Your task to perform on an android device: Open internet settings Image 0: 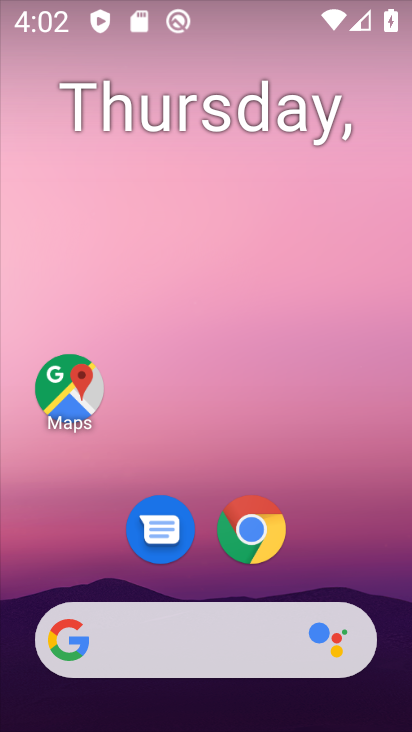
Step 0: click (67, 374)
Your task to perform on an android device: Open internet settings Image 1: 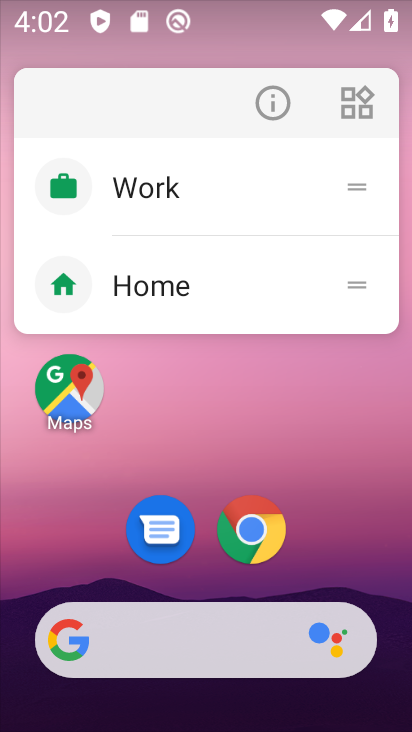
Step 1: click (68, 390)
Your task to perform on an android device: Open internet settings Image 2: 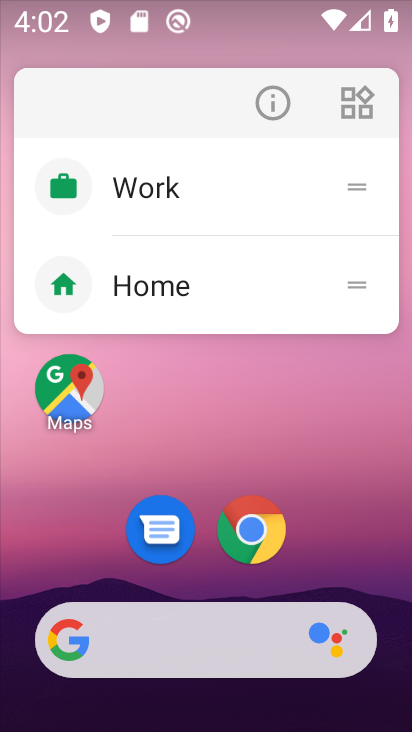
Step 2: click (68, 391)
Your task to perform on an android device: Open internet settings Image 3: 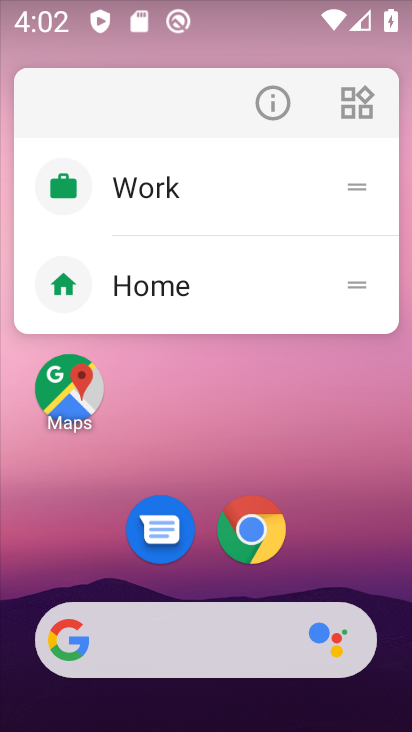
Step 3: click (68, 391)
Your task to perform on an android device: Open internet settings Image 4: 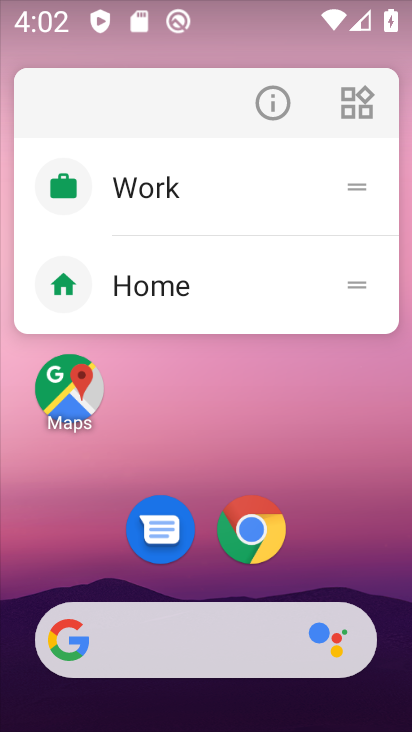
Step 4: click (68, 391)
Your task to perform on an android device: Open internet settings Image 5: 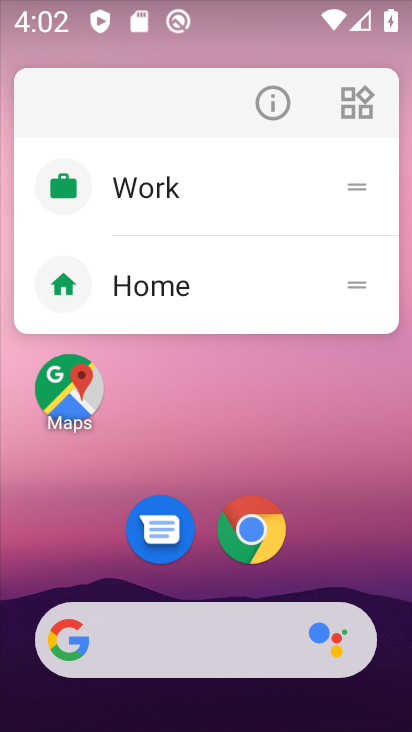
Step 5: click (72, 385)
Your task to perform on an android device: Open internet settings Image 6: 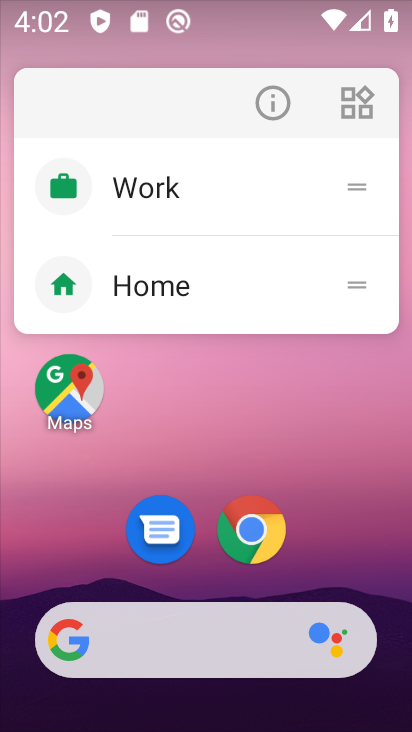
Step 6: click (72, 385)
Your task to perform on an android device: Open internet settings Image 7: 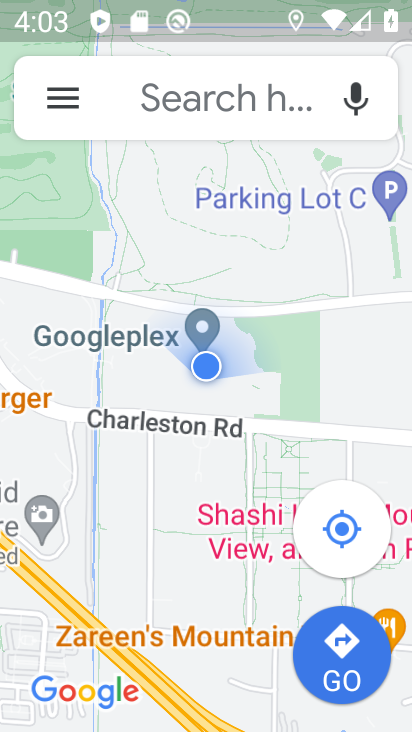
Step 7: press home button
Your task to perform on an android device: Open internet settings Image 8: 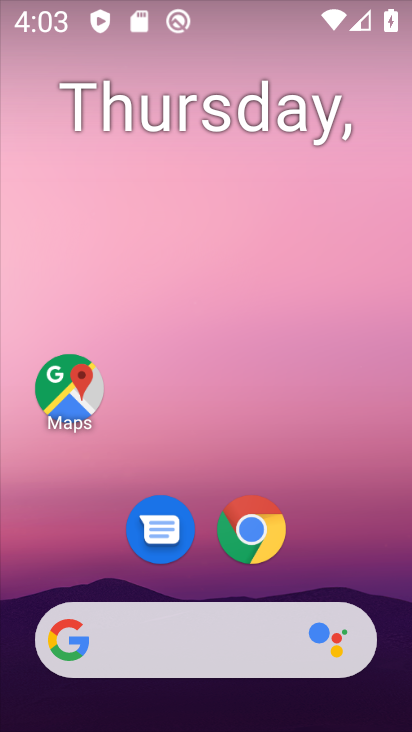
Step 8: drag from (165, 596) to (247, 163)
Your task to perform on an android device: Open internet settings Image 9: 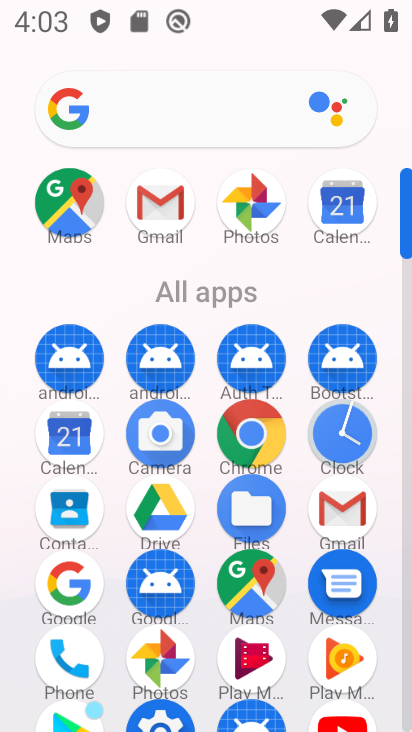
Step 9: drag from (209, 649) to (224, 266)
Your task to perform on an android device: Open internet settings Image 10: 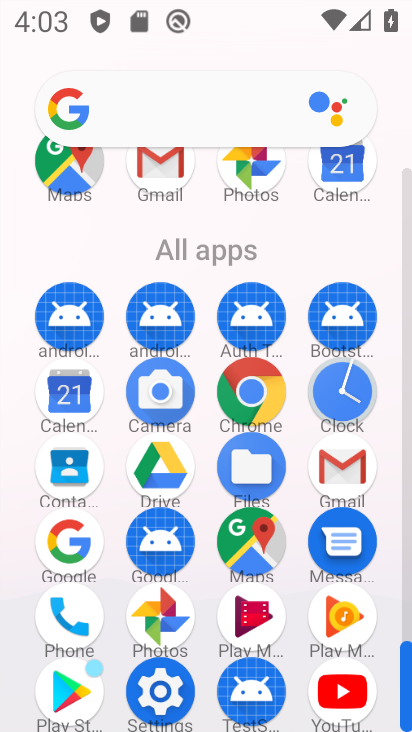
Step 10: click (164, 694)
Your task to perform on an android device: Open internet settings Image 11: 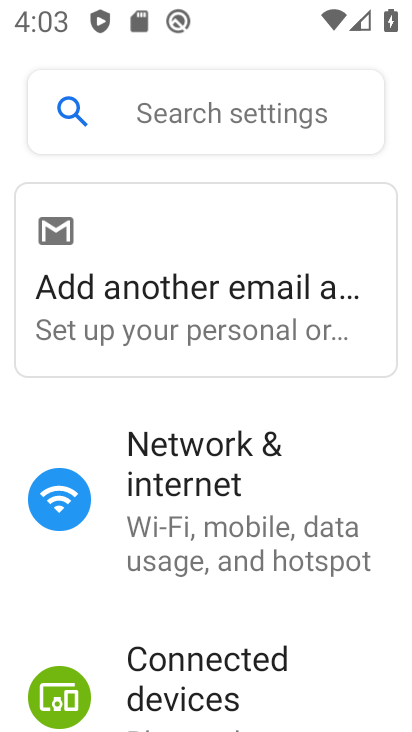
Step 11: click (227, 470)
Your task to perform on an android device: Open internet settings Image 12: 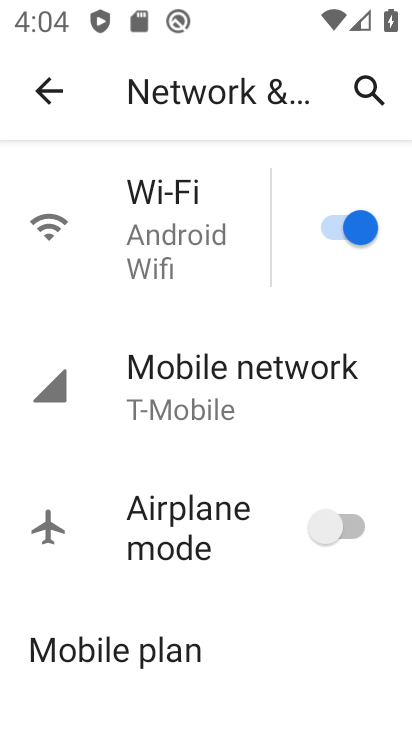
Step 12: drag from (166, 623) to (222, 213)
Your task to perform on an android device: Open internet settings Image 13: 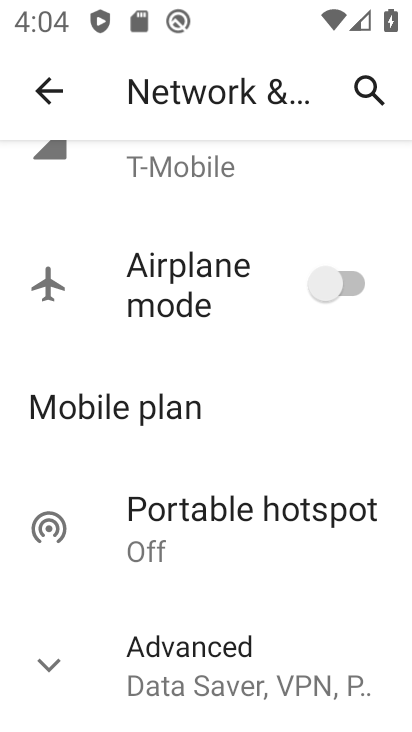
Step 13: click (184, 665)
Your task to perform on an android device: Open internet settings Image 14: 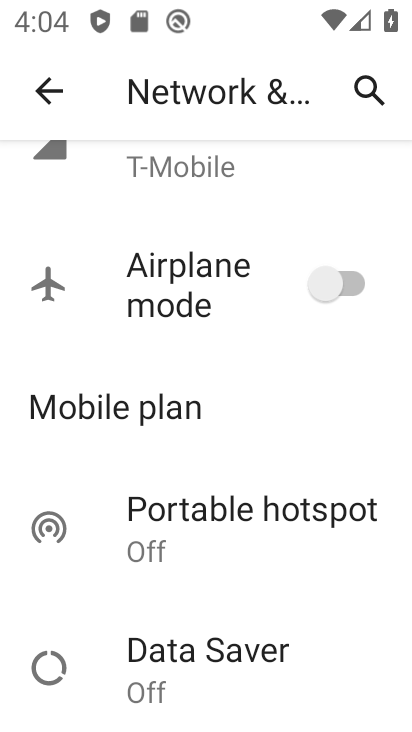
Step 14: task complete